Your task to perform on an android device: set an alarm Image 0: 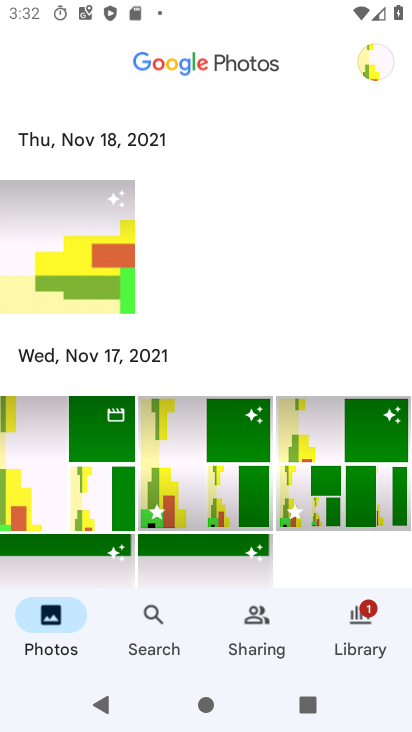
Step 0: press home button
Your task to perform on an android device: set an alarm Image 1: 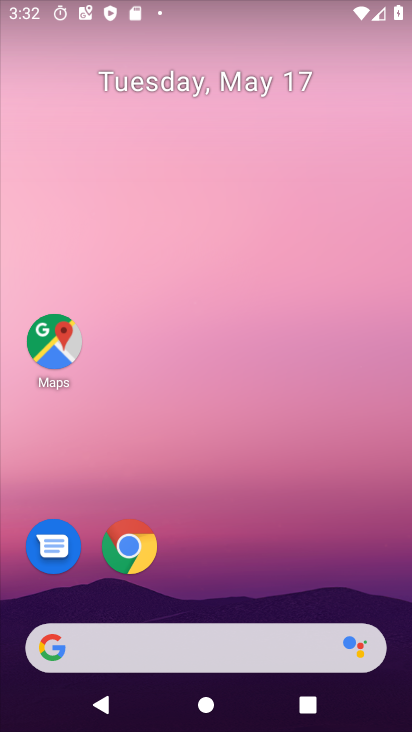
Step 1: drag from (307, 561) to (328, 218)
Your task to perform on an android device: set an alarm Image 2: 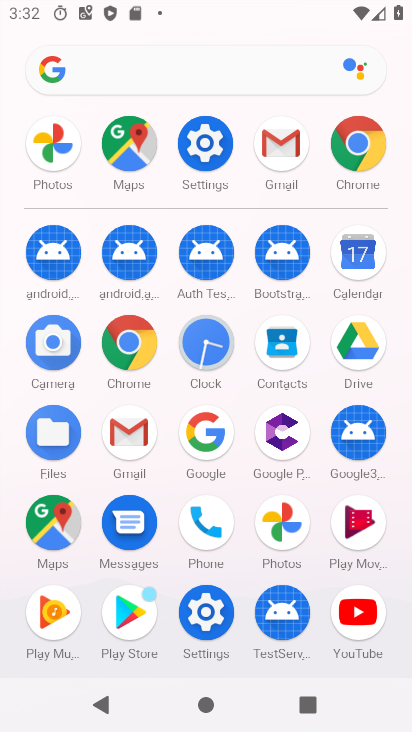
Step 2: click (207, 348)
Your task to perform on an android device: set an alarm Image 3: 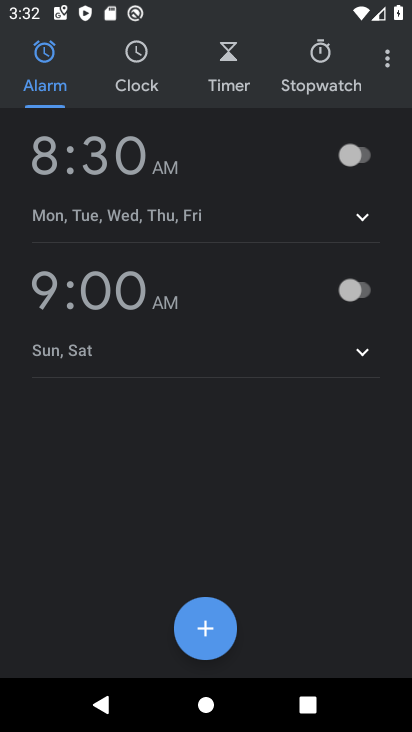
Step 3: click (222, 616)
Your task to perform on an android device: set an alarm Image 4: 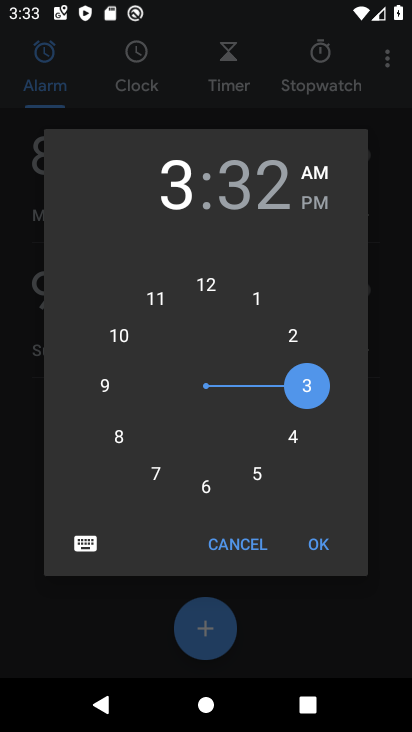
Step 4: click (321, 538)
Your task to perform on an android device: set an alarm Image 5: 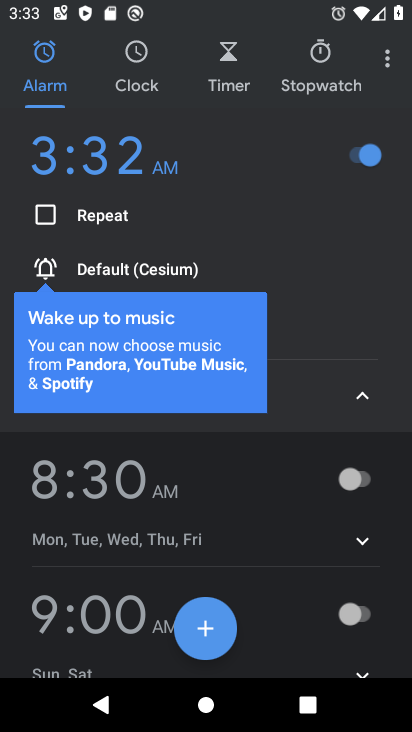
Step 5: task complete